Your task to perform on an android device: turn off smart reply in the gmail app Image 0: 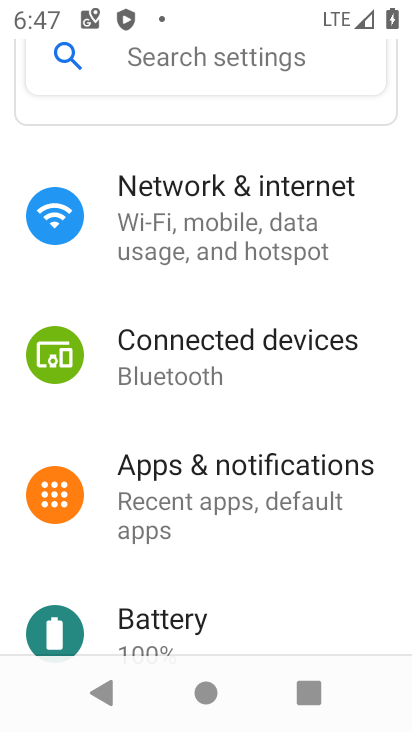
Step 0: press home button
Your task to perform on an android device: turn off smart reply in the gmail app Image 1: 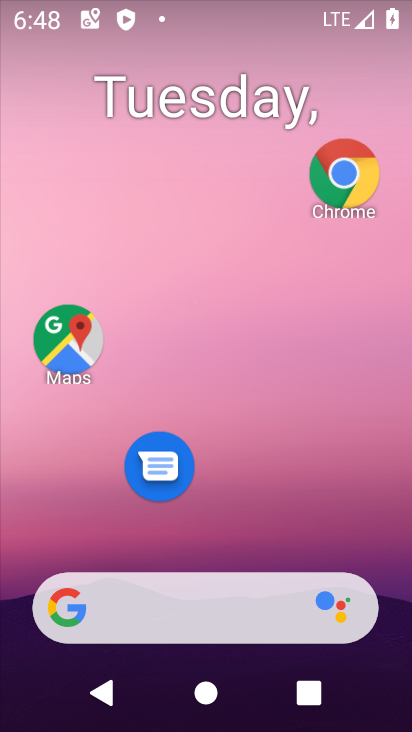
Step 1: drag from (267, 553) to (271, 217)
Your task to perform on an android device: turn off smart reply in the gmail app Image 2: 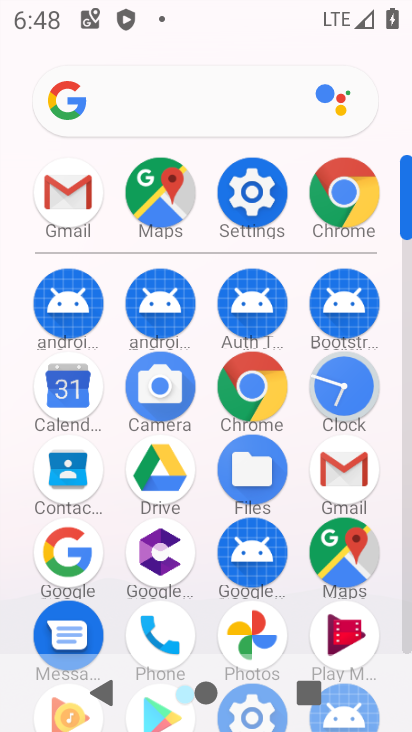
Step 2: click (345, 478)
Your task to perform on an android device: turn off smart reply in the gmail app Image 3: 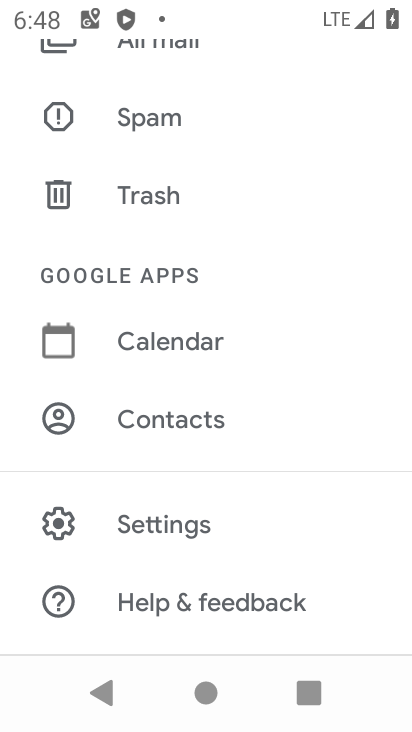
Step 3: click (190, 524)
Your task to perform on an android device: turn off smart reply in the gmail app Image 4: 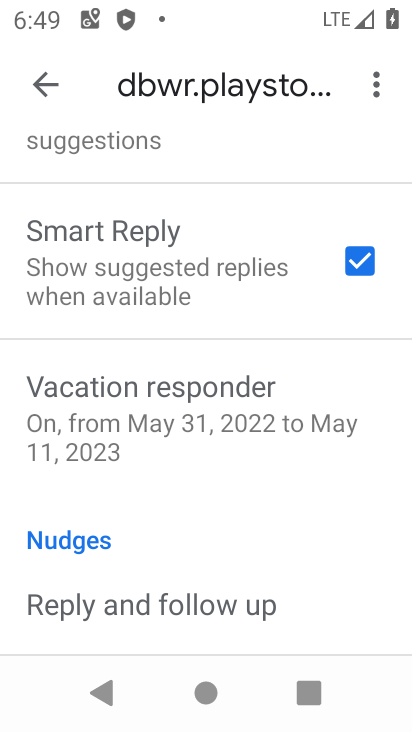
Step 4: click (252, 316)
Your task to perform on an android device: turn off smart reply in the gmail app Image 5: 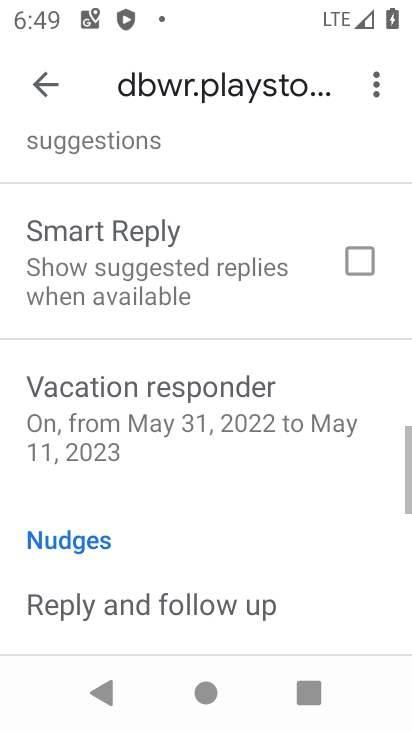
Step 5: task complete